Your task to perform on an android device: toggle data saver in the chrome app Image 0: 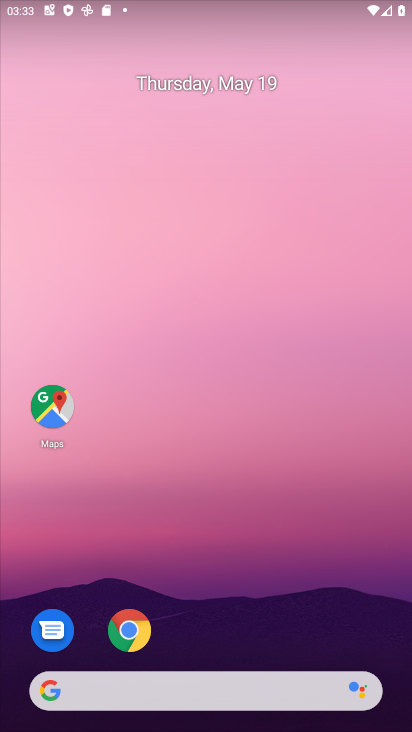
Step 0: click (131, 635)
Your task to perform on an android device: toggle data saver in the chrome app Image 1: 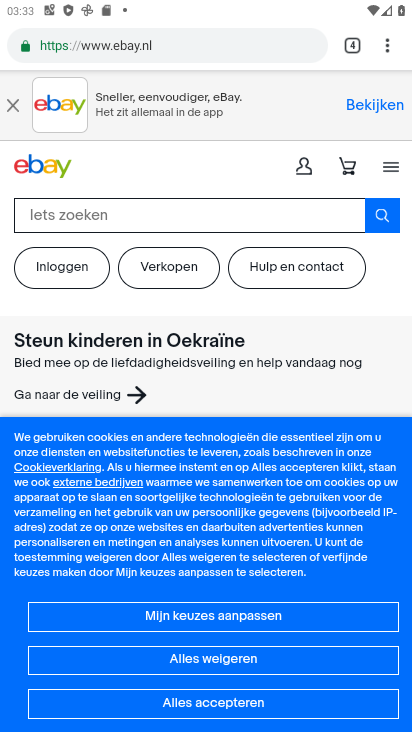
Step 1: click (388, 51)
Your task to perform on an android device: toggle data saver in the chrome app Image 2: 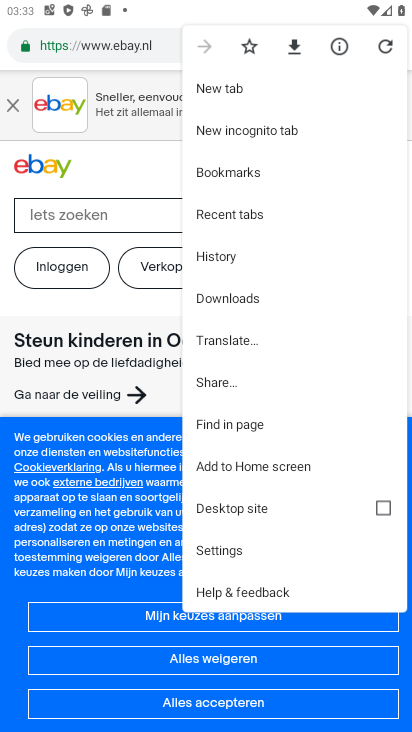
Step 2: click (239, 546)
Your task to perform on an android device: toggle data saver in the chrome app Image 3: 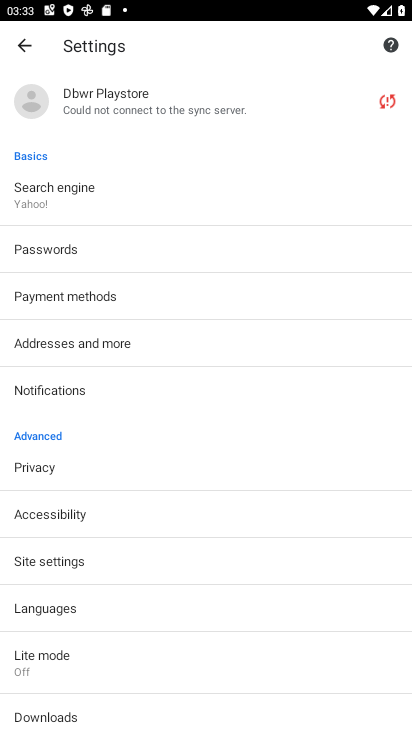
Step 3: click (36, 661)
Your task to perform on an android device: toggle data saver in the chrome app Image 4: 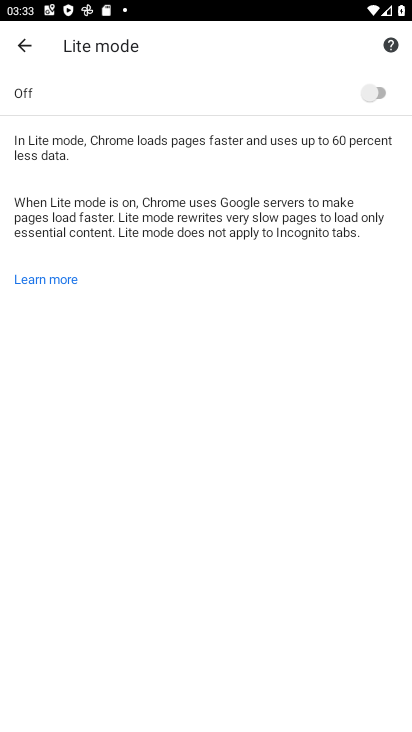
Step 4: click (379, 91)
Your task to perform on an android device: toggle data saver in the chrome app Image 5: 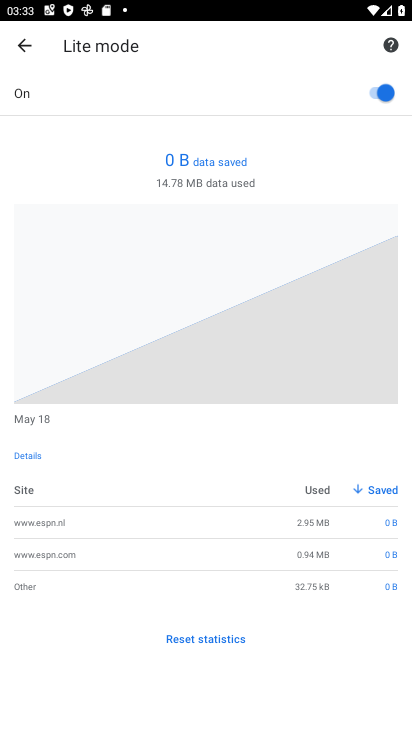
Step 5: task complete